Your task to perform on an android device: open chrome privacy settings Image 0: 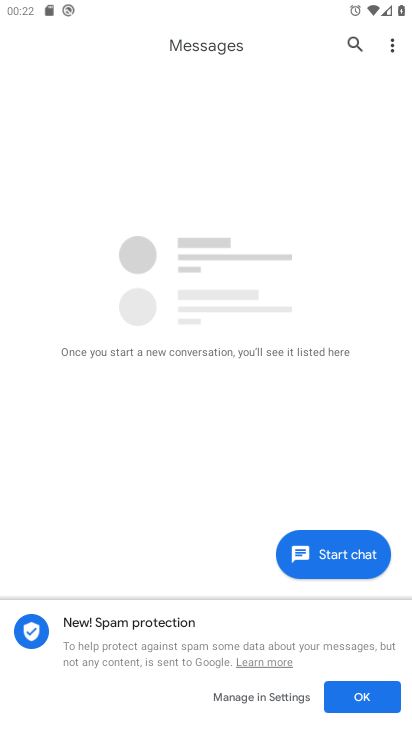
Step 0: press home button
Your task to perform on an android device: open chrome privacy settings Image 1: 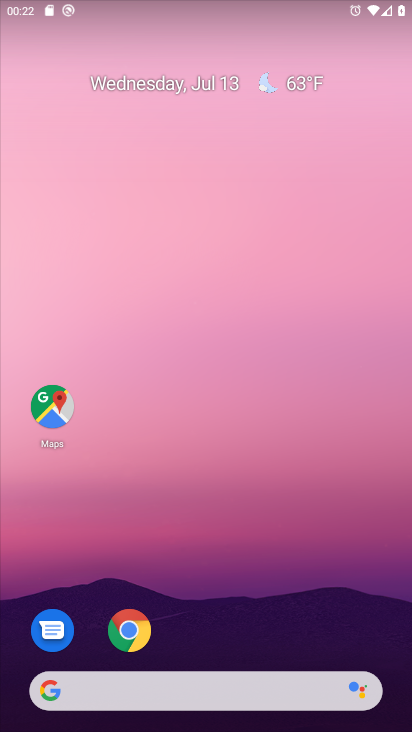
Step 1: click (145, 646)
Your task to perform on an android device: open chrome privacy settings Image 2: 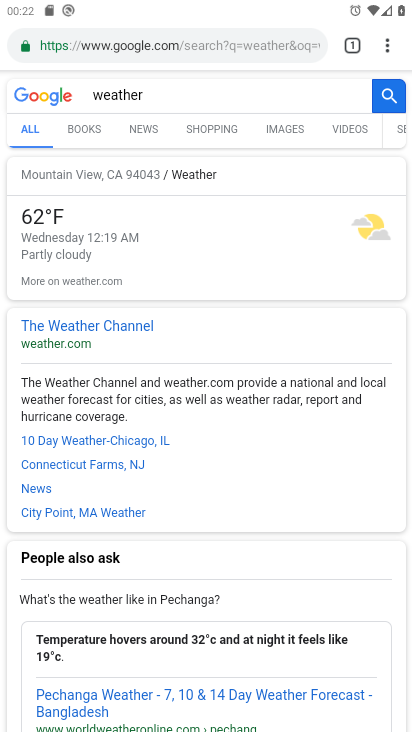
Step 2: drag from (387, 54) to (228, 517)
Your task to perform on an android device: open chrome privacy settings Image 3: 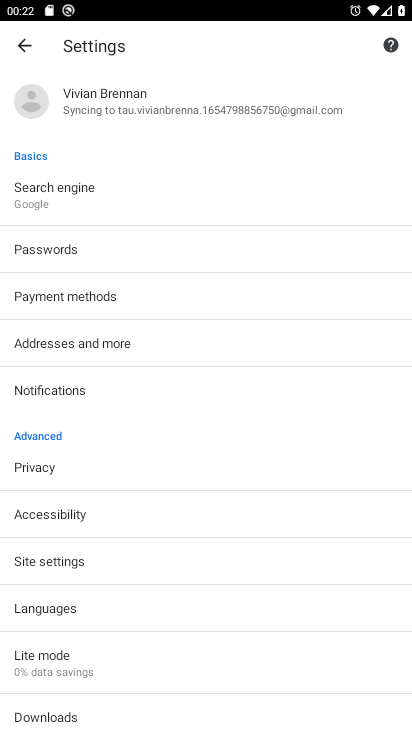
Step 3: click (91, 456)
Your task to perform on an android device: open chrome privacy settings Image 4: 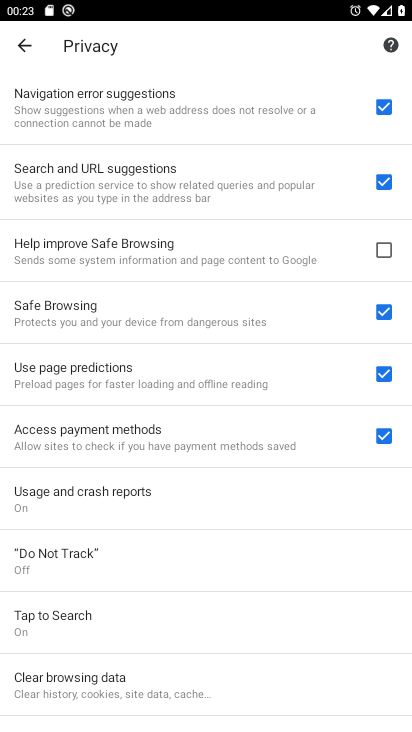
Step 4: task complete